Your task to perform on an android device: Search for sushi restaurants on Maps Image 0: 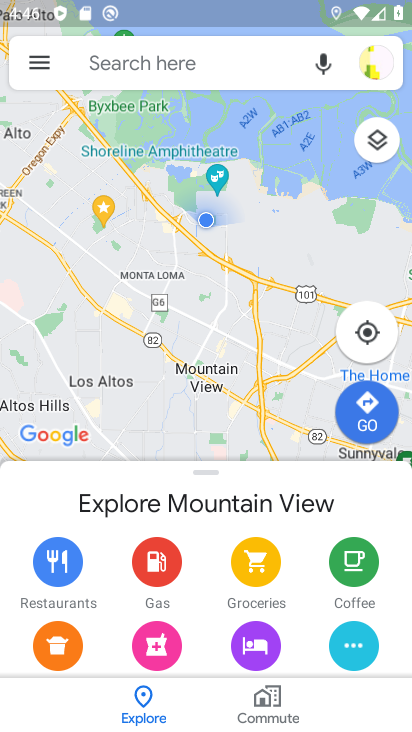
Step 0: click (223, 64)
Your task to perform on an android device: Search for sushi restaurants on Maps Image 1: 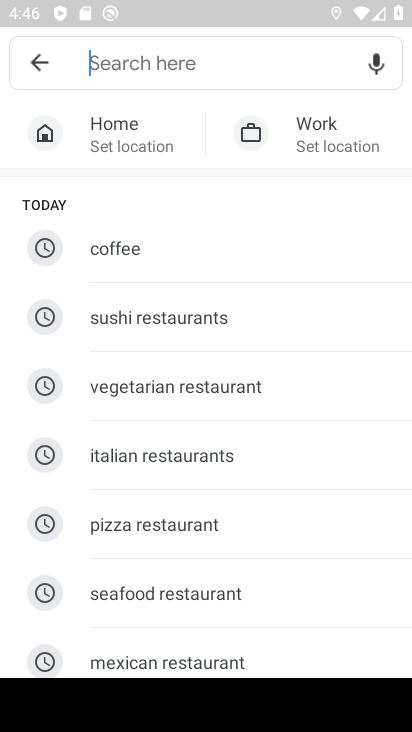
Step 1: type "sushi restaurants"
Your task to perform on an android device: Search for sushi restaurants on Maps Image 2: 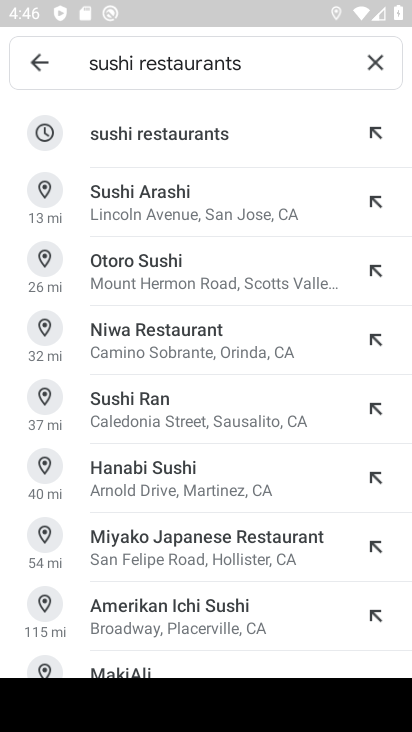
Step 2: click (223, 134)
Your task to perform on an android device: Search for sushi restaurants on Maps Image 3: 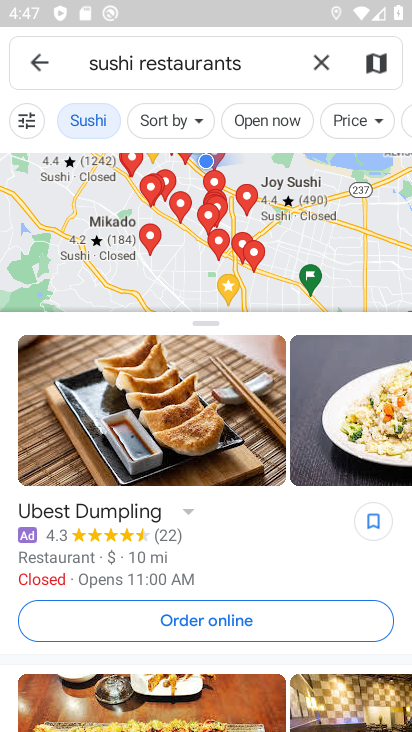
Step 3: task complete